Your task to perform on an android device: Open Youtube and go to "Your channel" Image 0: 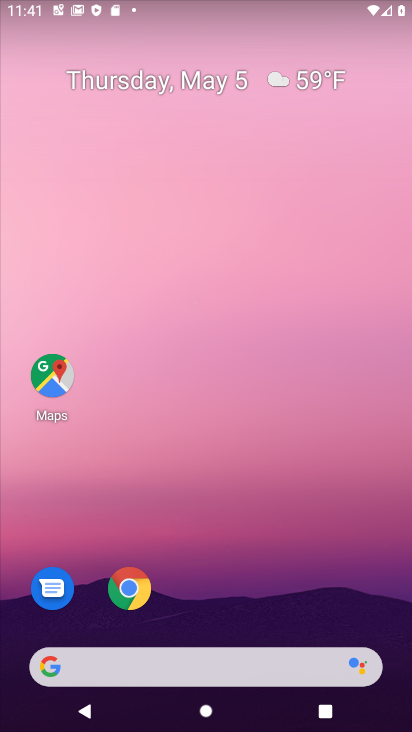
Step 0: drag from (166, 666) to (291, 152)
Your task to perform on an android device: Open Youtube and go to "Your channel" Image 1: 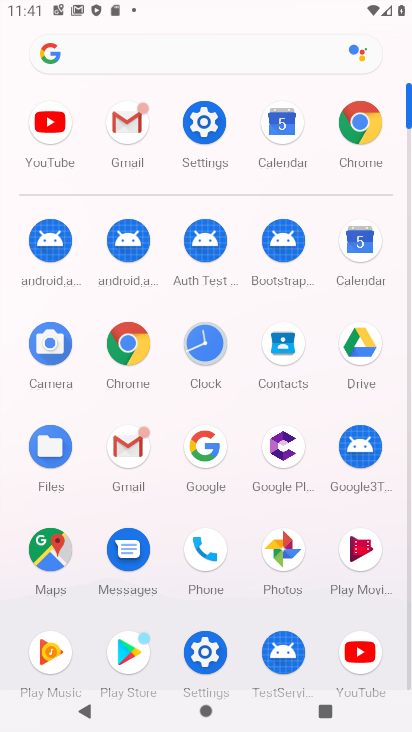
Step 1: click (355, 654)
Your task to perform on an android device: Open Youtube and go to "Your channel" Image 2: 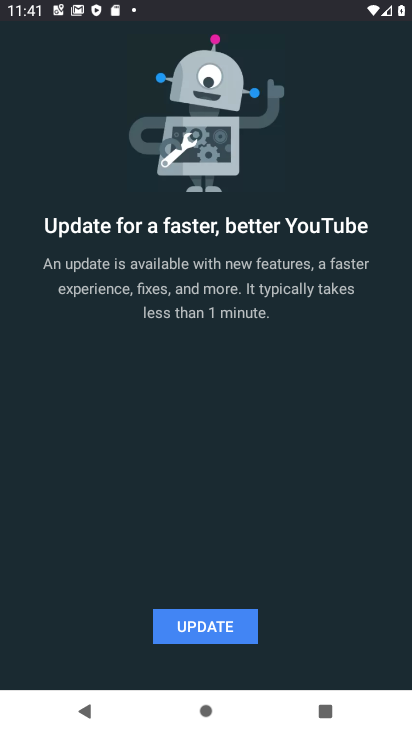
Step 2: click (236, 627)
Your task to perform on an android device: Open Youtube and go to "Your channel" Image 3: 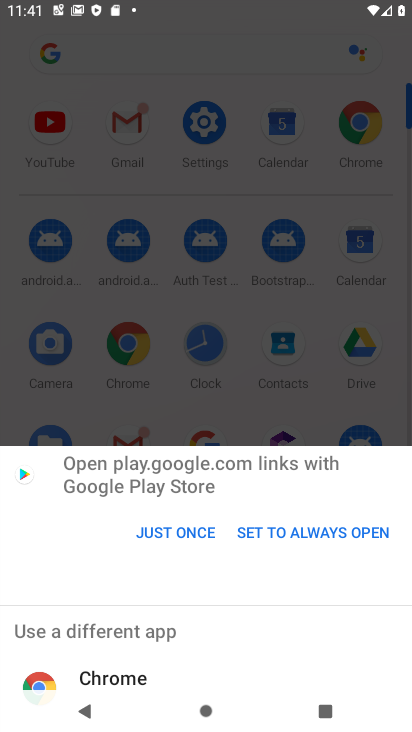
Step 3: click (172, 529)
Your task to perform on an android device: Open Youtube and go to "Your channel" Image 4: 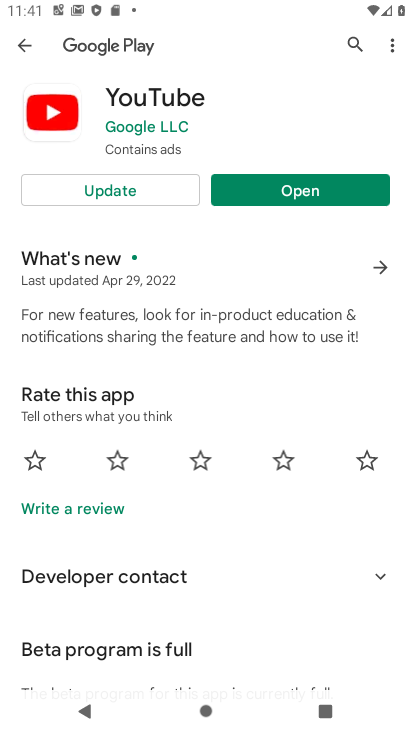
Step 4: click (134, 189)
Your task to perform on an android device: Open Youtube and go to "Your channel" Image 5: 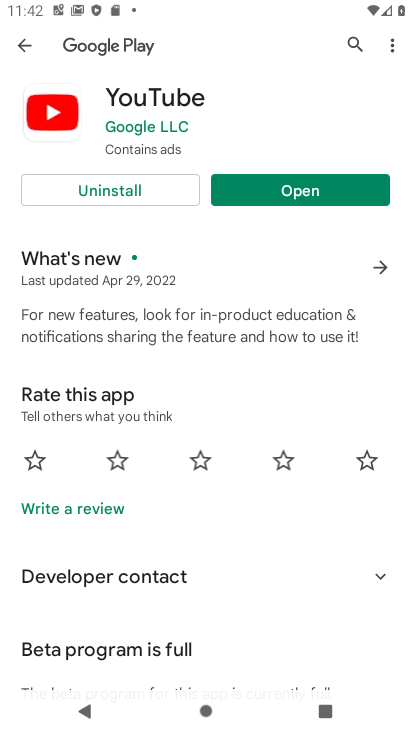
Step 5: click (296, 189)
Your task to perform on an android device: Open Youtube and go to "Your channel" Image 6: 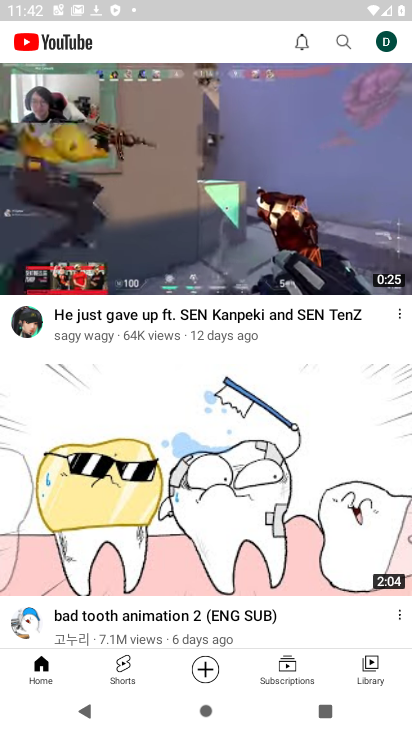
Step 6: click (388, 44)
Your task to perform on an android device: Open Youtube and go to "Your channel" Image 7: 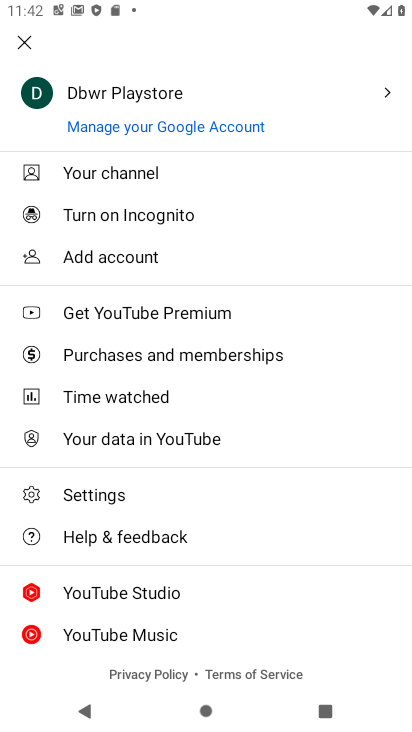
Step 7: click (144, 174)
Your task to perform on an android device: Open Youtube and go to "Your channel" Image 8: 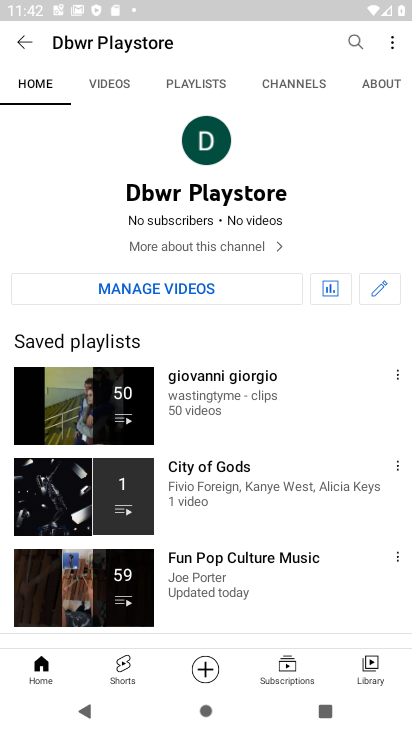
Step 8: task complete